Your task to perform on an android device: Play the last video I watched on Youtube Image 0: 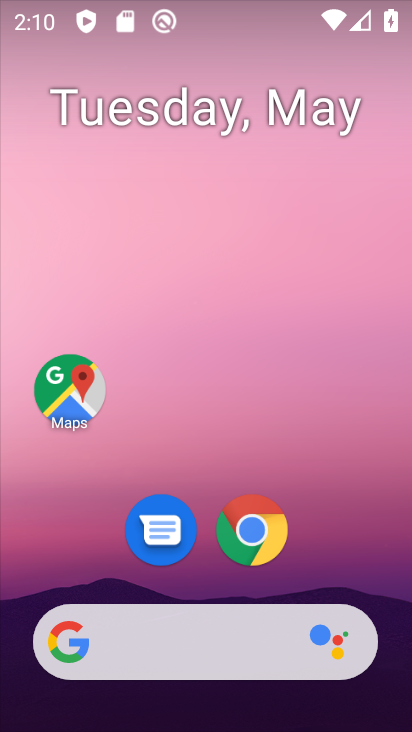
Step 0: drag from (212, 557) to (254, 5)
Your task to perform on an android device: Play the last video I watched on Youtube Image 1: 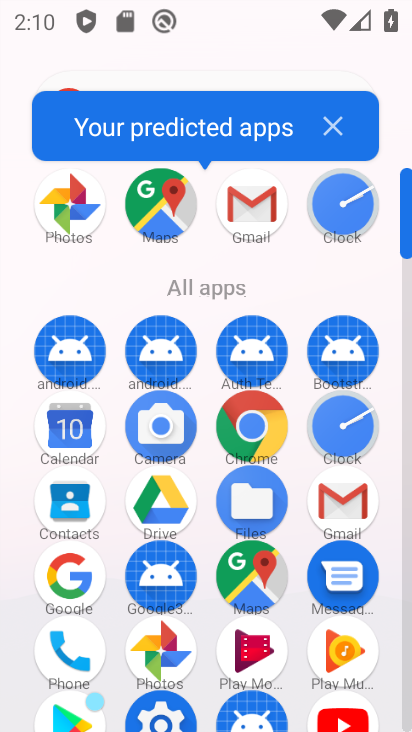
Step 1: click (347, 719)
Your task to perform on an android device: Play the last video I watched on Youtube Image 2: 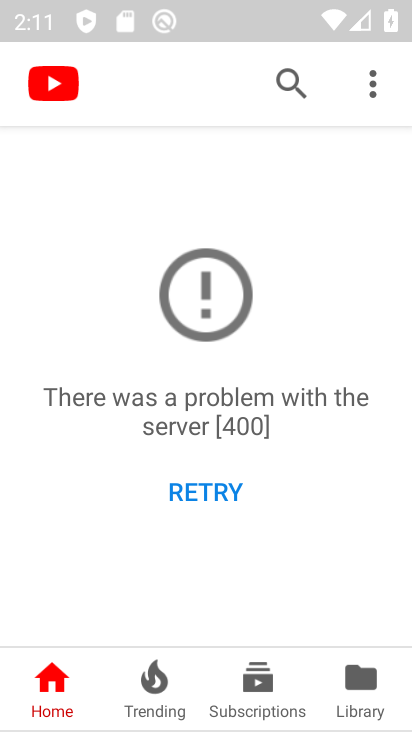
Step 2: click (361, 692)
Your task to perform on an android device: Play the last video I watched on Youtube Image 3: 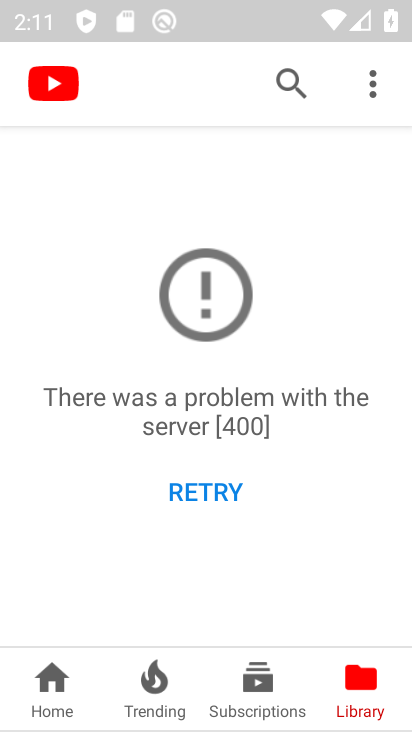
Step 3: task complete